Your task to perform on an android device: remove spam from my inbox in the gmail app Image 0: 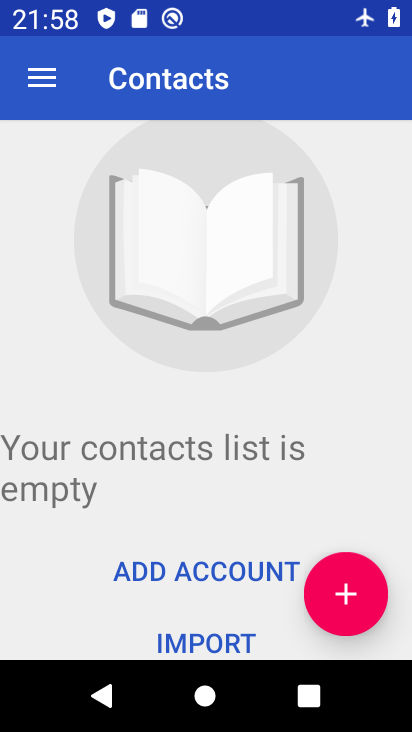
Step 0: press home button
Your task to perform on an android device: remove spam from my inbox in the gmail app Image 1: 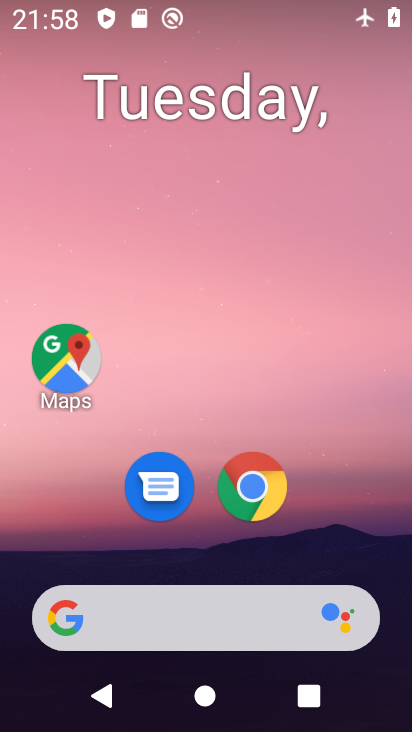
Step 1: drag from (338, 536) to (344, 113)
Your task to perform on an android device: remove spam from my inbox in the gmail app Image 2: 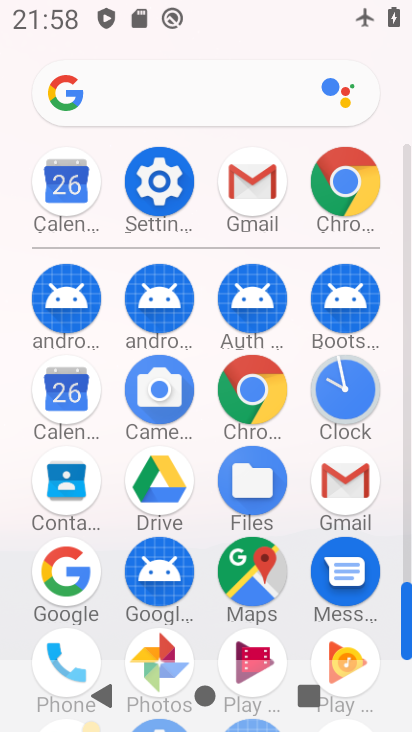
Step 2: click (343, 483)
Your task to perform on an android device: remove spam from my inbox in the gmail app Image 3: 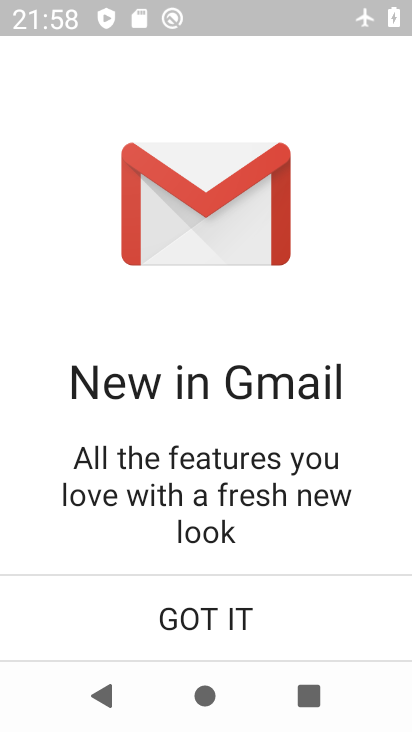
Step 3: click (266, 600)
Your task to perform on an android device: remove spam from my inbox in the gmail app Image 4: 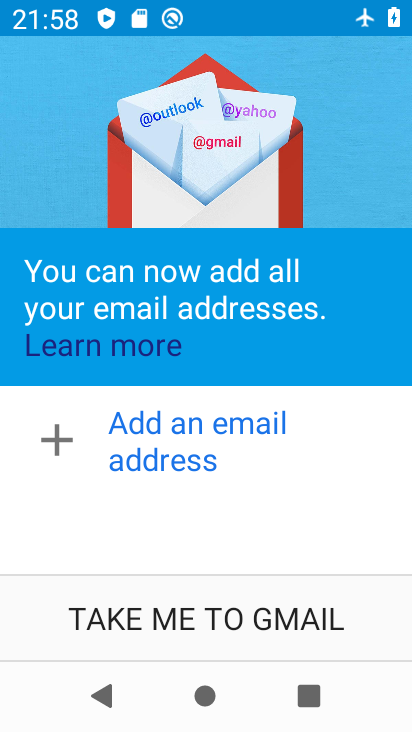
Step 4: click (244, 622)
Your task to perform on an android device: remove spam from my inbox in the gmail app Image 5: 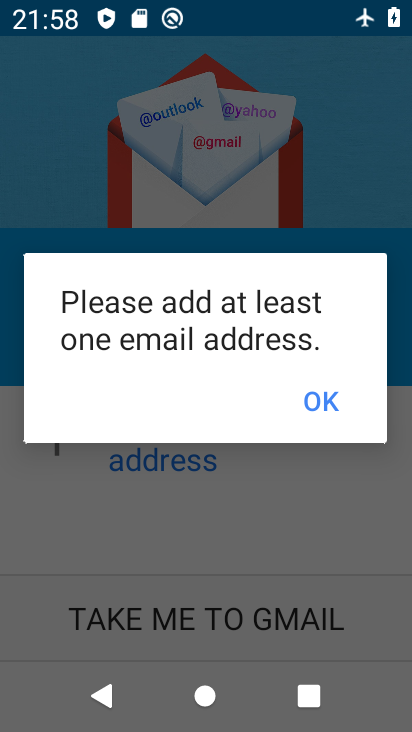
Step 5: task complete